Your task to perform on an android device: Search for the best movies of 2019  Image 0: 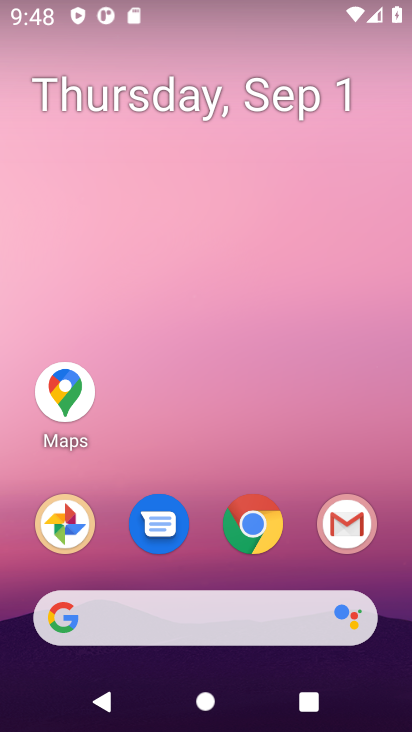
Step 0: drag from (384, 575) to (382, 92)
Your task to perform on an android device: Search for the best movies of 2019  Image 1: 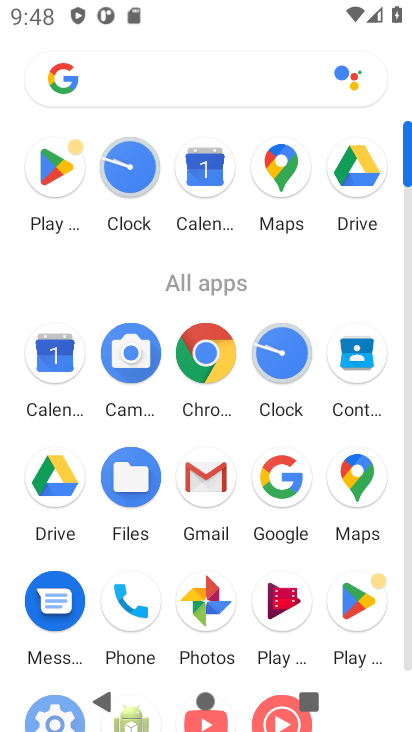
Step 1: click (209, 359)
Your task to perform on an android device: Search for the best movies of 2019  Image 2: 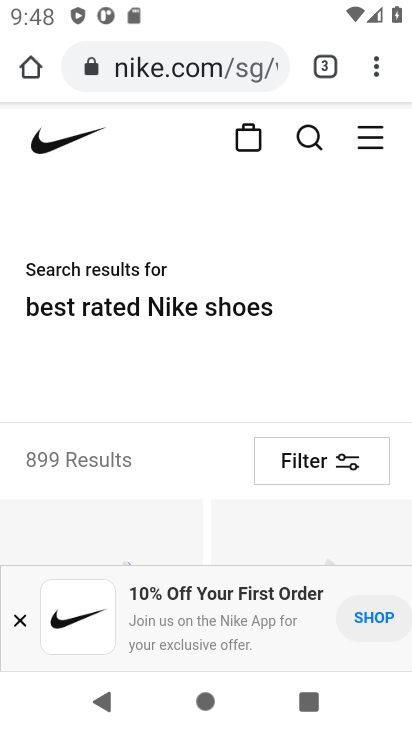
Step 2: press back button
Your task to perform on an android device: Search for the best movies of 2019  Image 3: 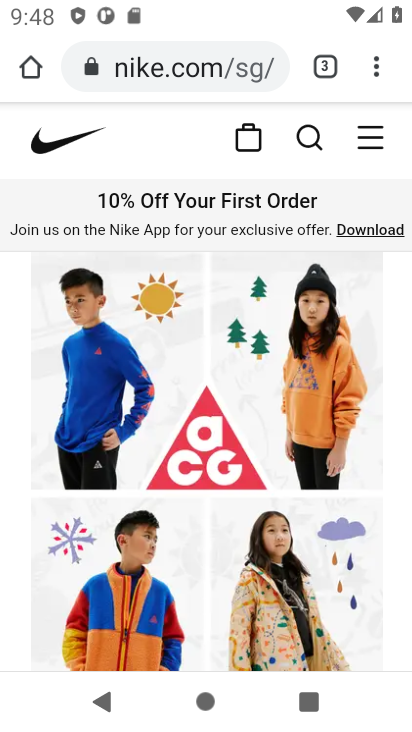
Step 3: press back button
Your task to perform on an android device: Search for the best movies of 2019  Image 4: 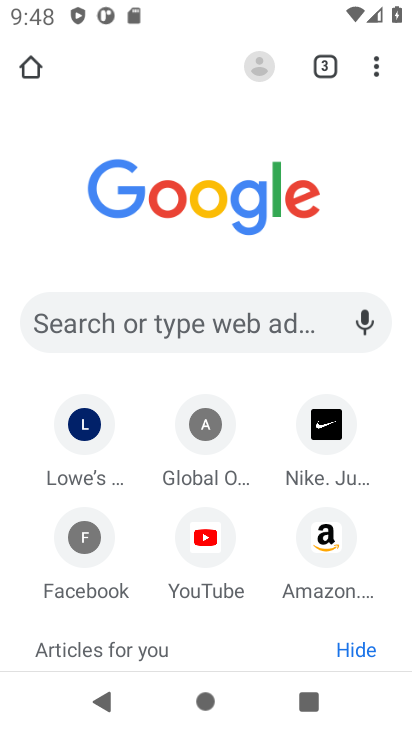
Step 4: click (216, 327)
Your task to perform on an android device: Search for the best movies of 2019  Image 5: 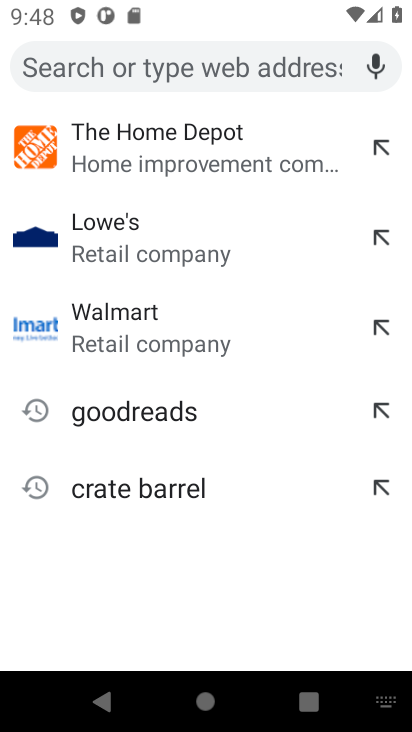
Step 5: type "best movies of 2019"
Your task to perform on an android device: Search for the best movies of 2019  Image 6: 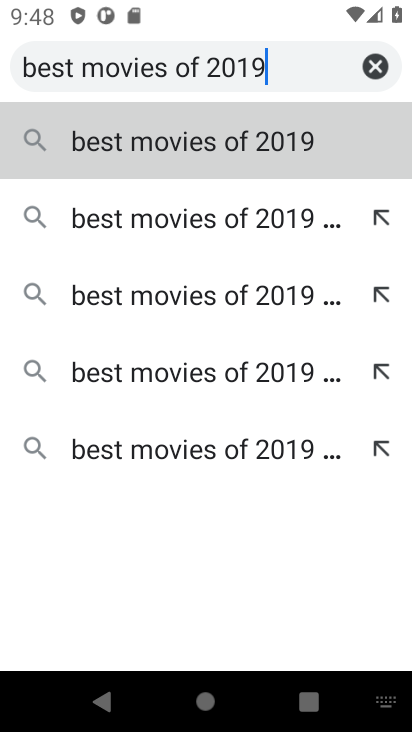
Step 6: press enter
Your task to perform on an android device: Search for the best movies of 2019  Image 7: 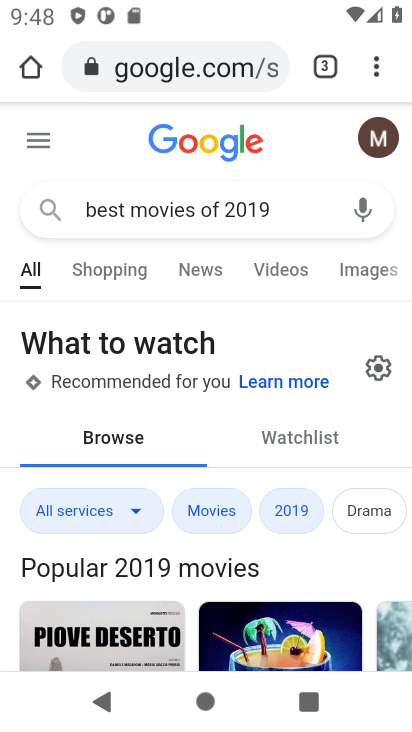
Step 7: drag from (383, 351) to (387, 246)
Your task to perform on an android device: Search for the best movies of 2019  Image 8: 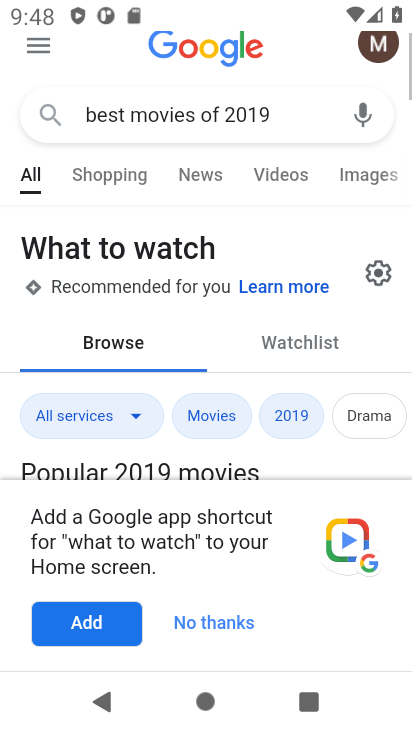
Step 8: click (213, 616)
Your task to perform on an android device: Search for the best movies of 2019  Image 9: 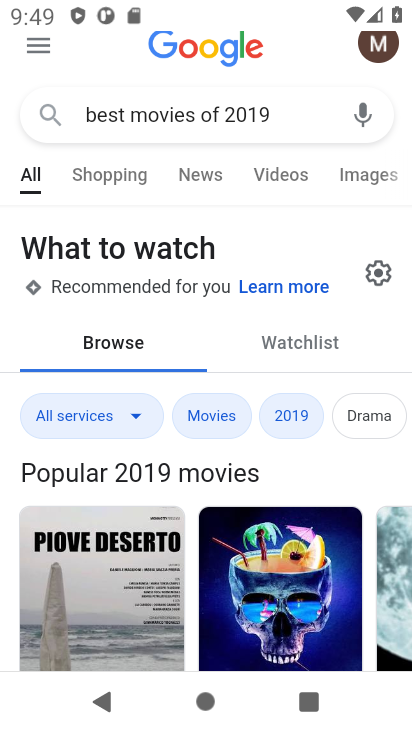
Step 9: task complete